Your task to perform on an android device: change the clock display to digital Image 0: 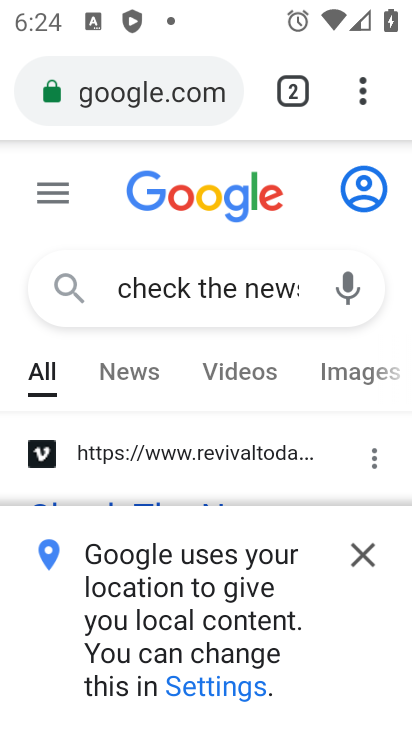
Step 0: press home button
Your task to perform on an android device: change the clock display to digital Image 1: 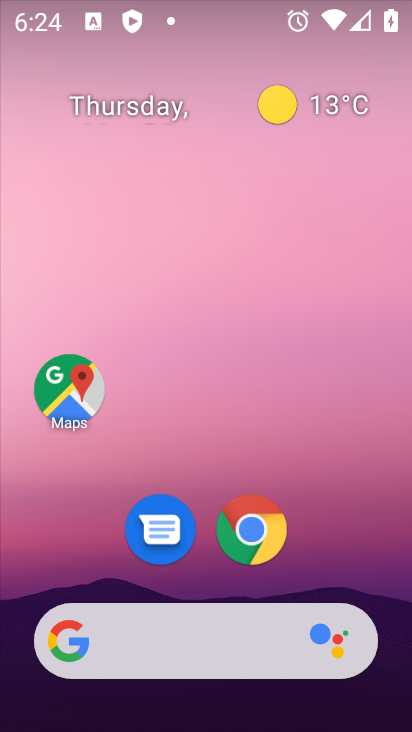
Step 1: drag from (304, 569) to (338, 77)
Your task to perform on an android device: change the clock display to digital Image 2: 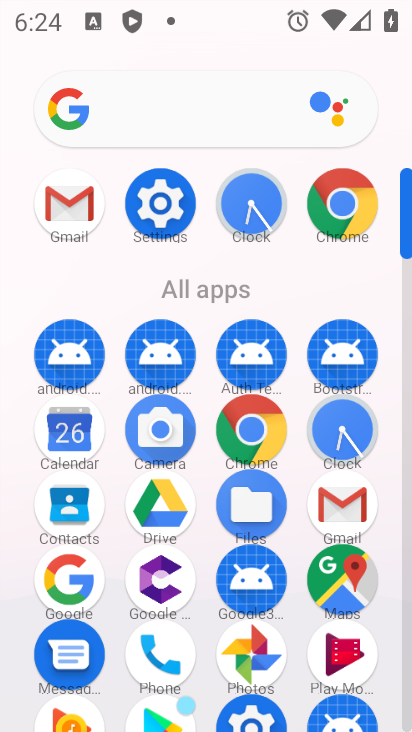
Step 2: click (343, 439)
Your task to perform on an android device: change the clock display to digital Image 3: 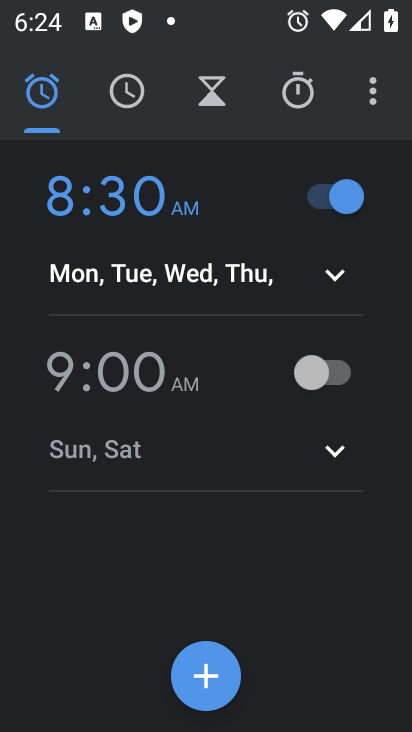
Step 3: click (374, 99)
Your task to perform on an android device: change the clock display to digital Image 4: 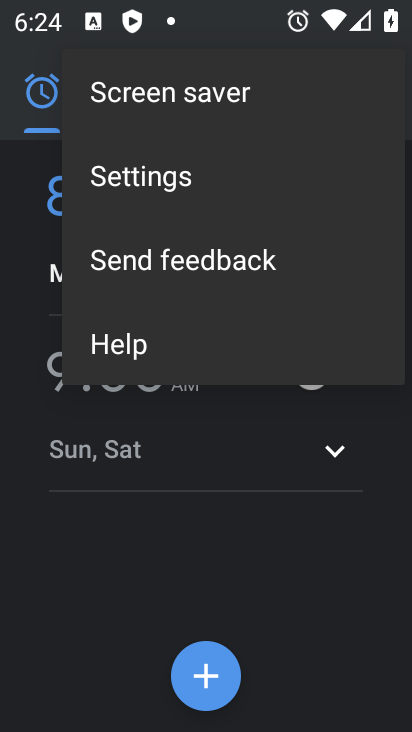
Step 4: click (163, 181)
Your task to perform on an android device: change the clock display to digital Image 5: 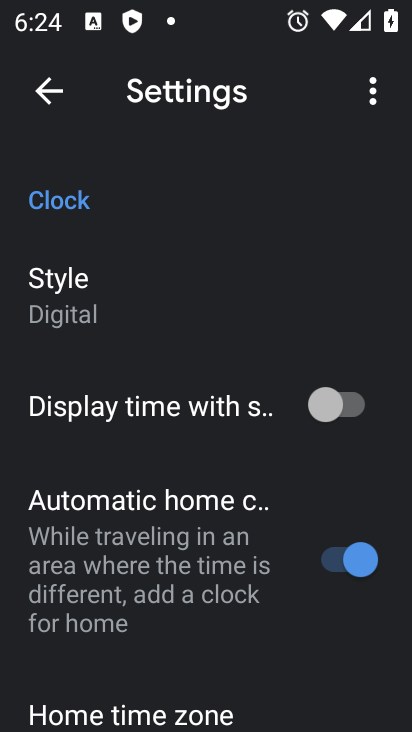
Step 5: task complete